Your task to perform on an android device: add a contact Image 0: 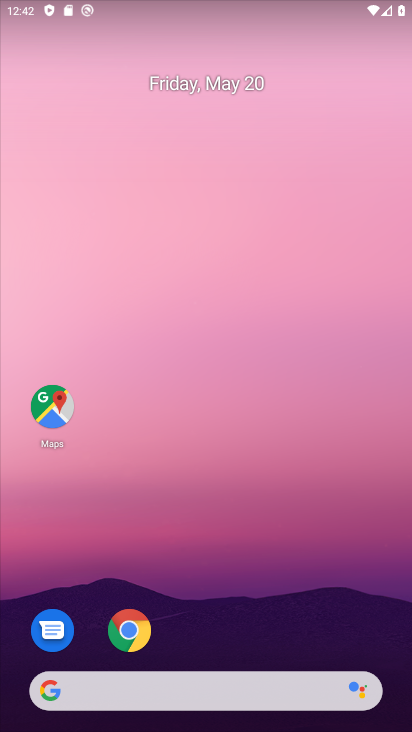
Step 0: drag from (208, 720) to (236, 339)
Your task to perform on an android device: add a contact Image 1: 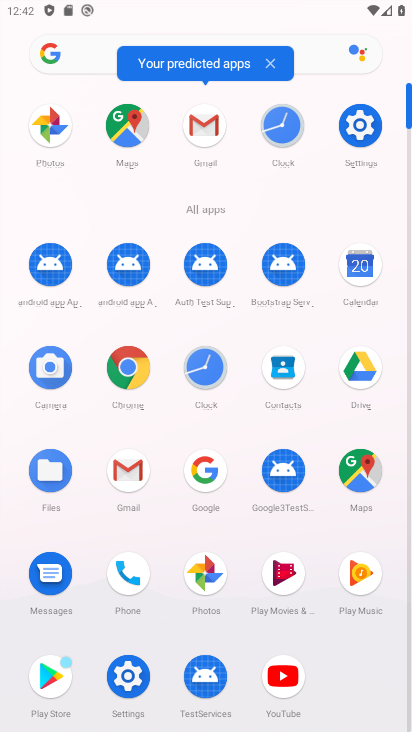
Step 1: click (134, 570)
Your task to perform on an android device: add a contact Image 2: 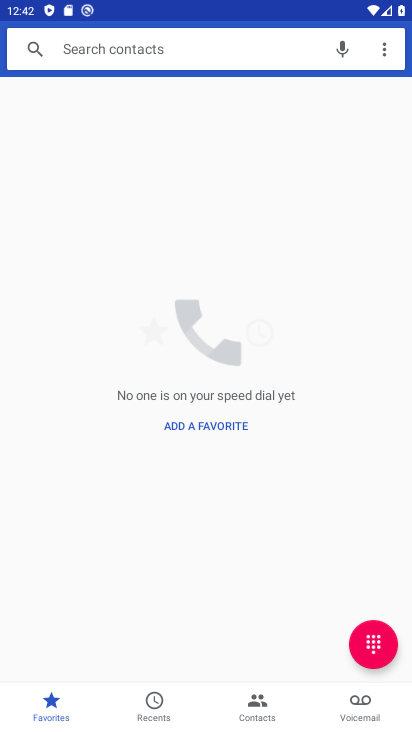
Step 2: click (247, 702)
Your task to perform on an android device: add a contact Image 3: 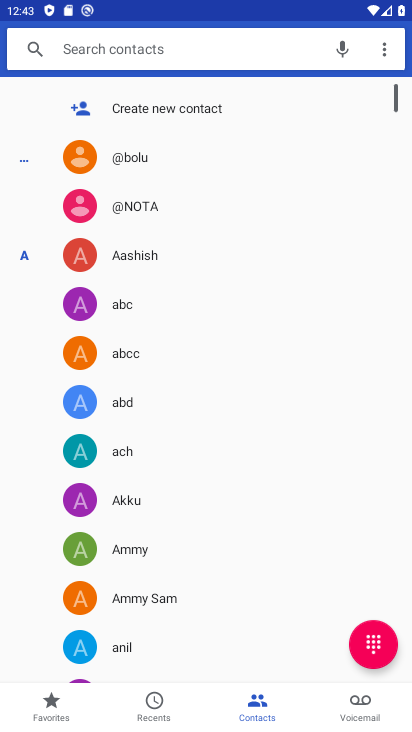
Step 3: click (112, 114)
Your task to perform on an android device: add a contact Image 4: 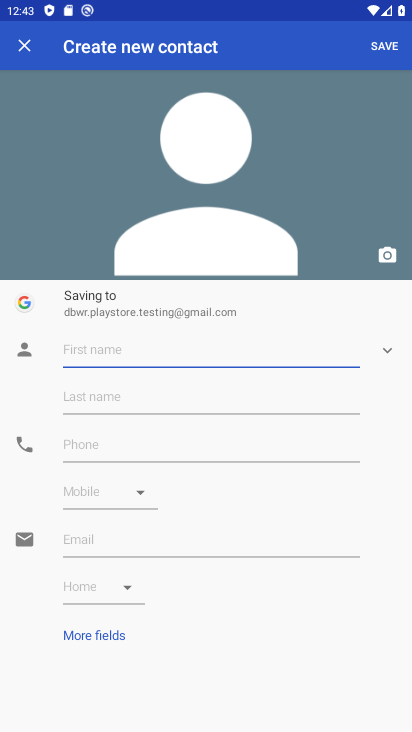
Step 4: click (136, 354)
Your task to perform on an android device: add a contact Image 5: 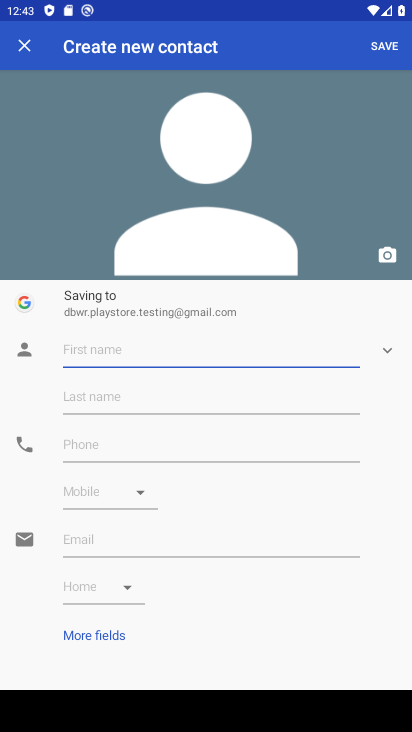
Step 5: drag from (373, 717) to (367, 589)
Your task to perform on an android device: add a contact Image 6: 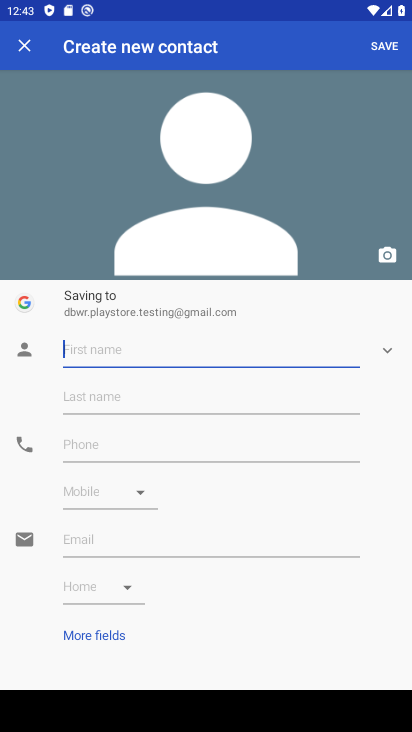
Step 6: click (386, 711)
Your task to perform on an android device: add a contact Image 7: 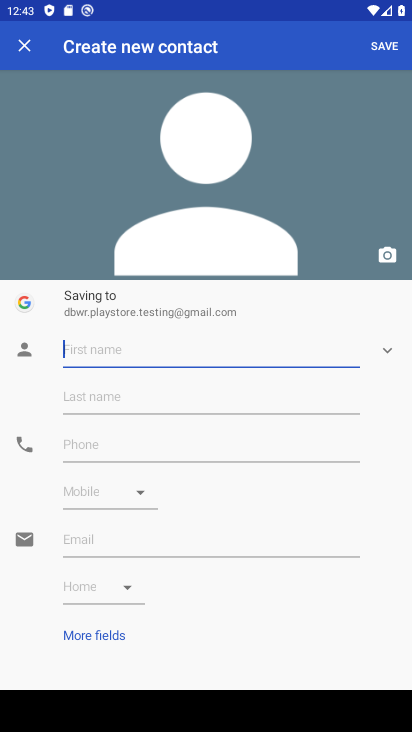
Step 7: drag from (385, 711) to (368, 654)
Your task to perform on an android device: add a contact Image 8: 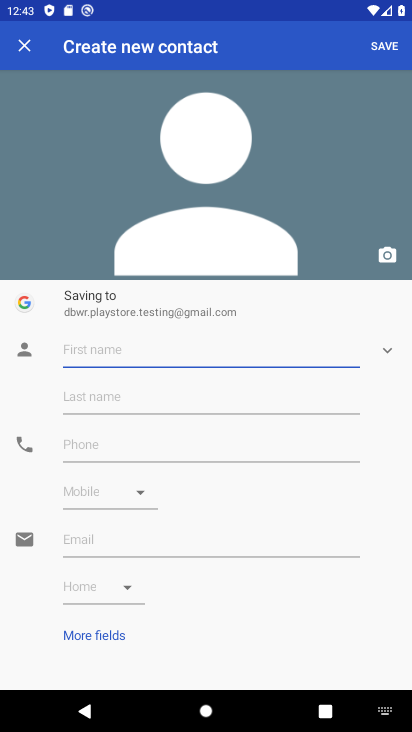
Step 8: click (401, 720)
Your task to perform on an android device: add a contact Image 9: 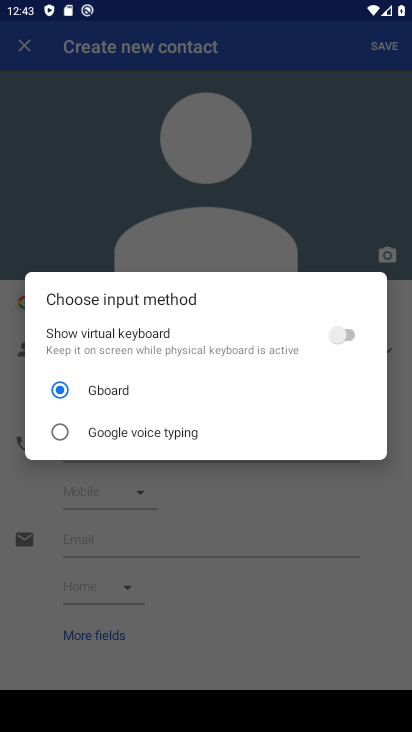
Step 9: click (352, 322)
Your task to perform on an android device: add a contact Image 10: 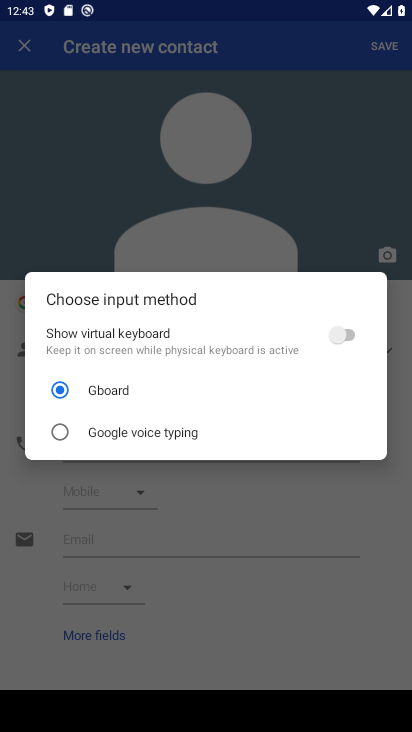
Step 10: click (336, 331)
Your task to perform on an android device: add a contact Image 11: 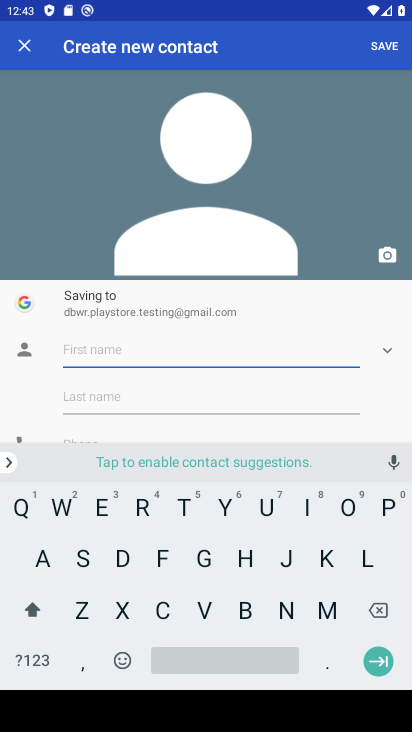
Step 11: click (249, 561)
Your task to perform on an android device: add a contact Image 12: 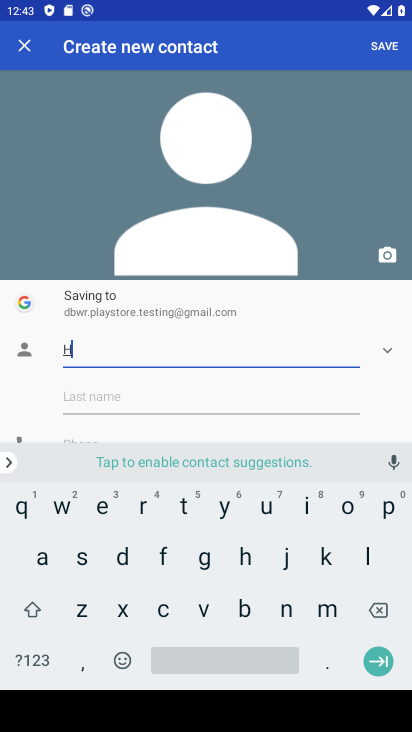
Step 12: click (273, 563)
Your task to perform on an android device: add a contact Image 13: 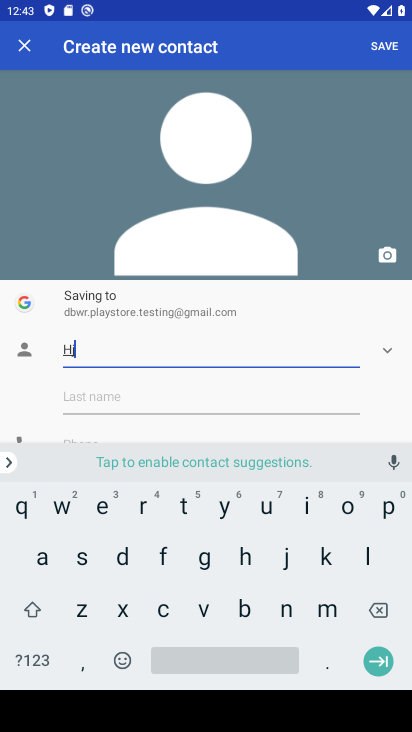
Step 13: click (318, 552)
Your task to perform on an android device: add a contact Image 14: 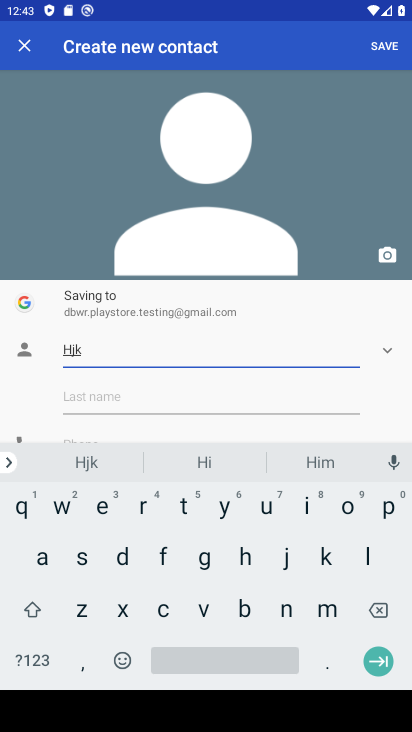
Step 14: click (126, 424)
Your task to perform on an android device: add a contact Image 15: 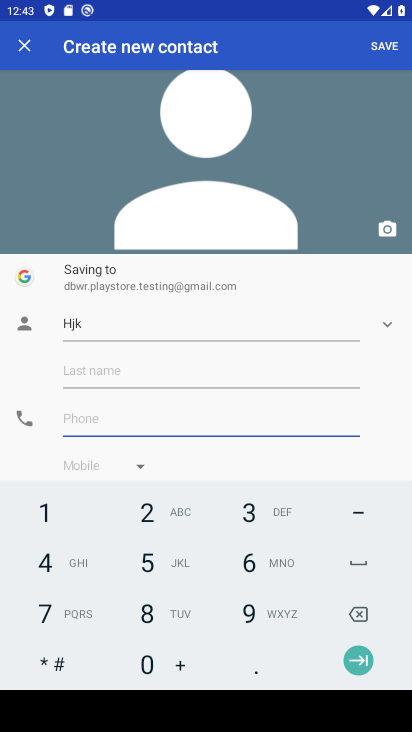
Step 15: click (121, 553)
Your task to perform on an android device: add a contact Image 16: 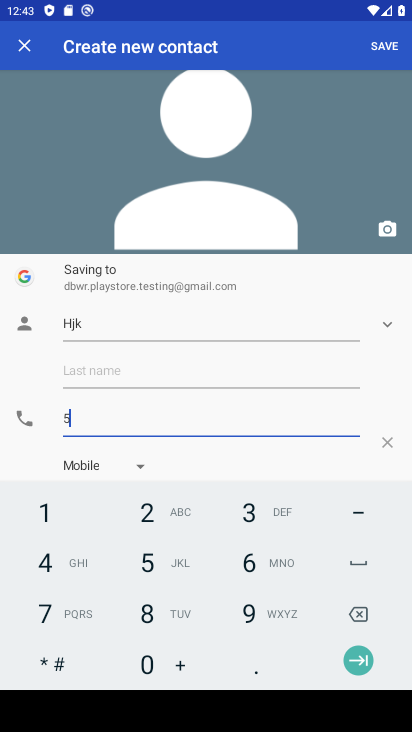
Step 16: click (60, 563)
Your task to perform on an android device: add a contact Image 17: 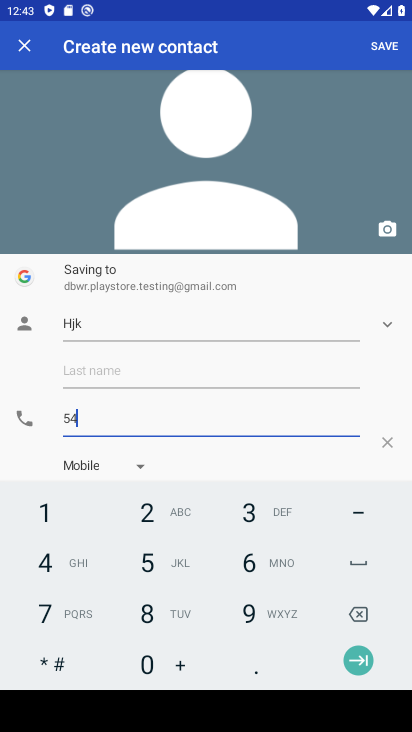
Step 17: click (121, 612)
Your task to perform on an android device: add a contact Image 18: 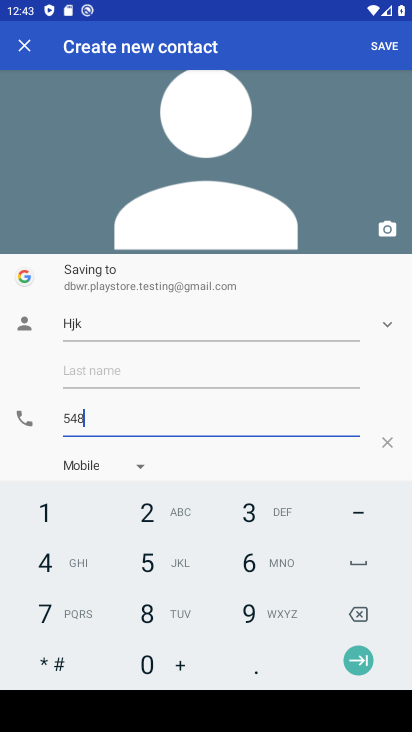
Step 18: click (143, 519)
Your task to perform on an android device: add a contact Image 19: 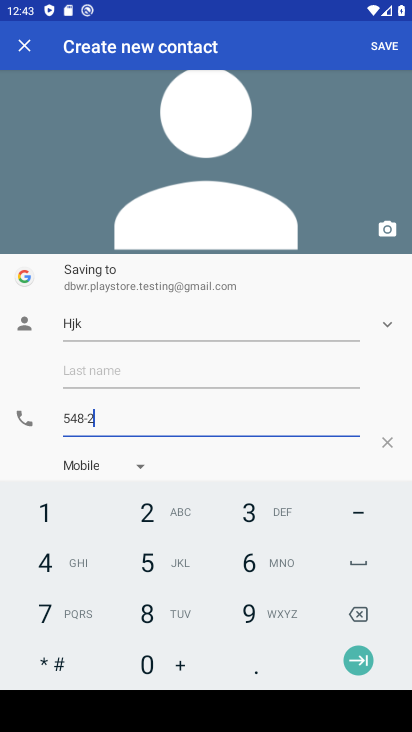
Step 19: click (266, 566)
Your task to perform on an android device: add a contact Image 20: 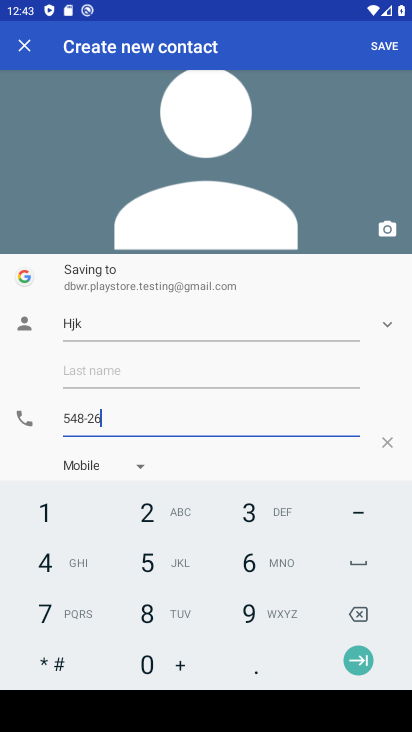
Step 20: click (254, 596)
Your task to perform on an android device: add a contact Image 21: 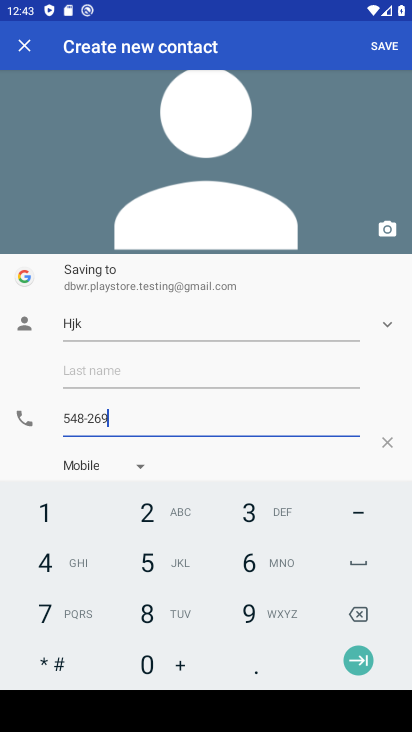
Step 21: click (141, 582)
Your task to perform on an android device: add a contact Image 22: 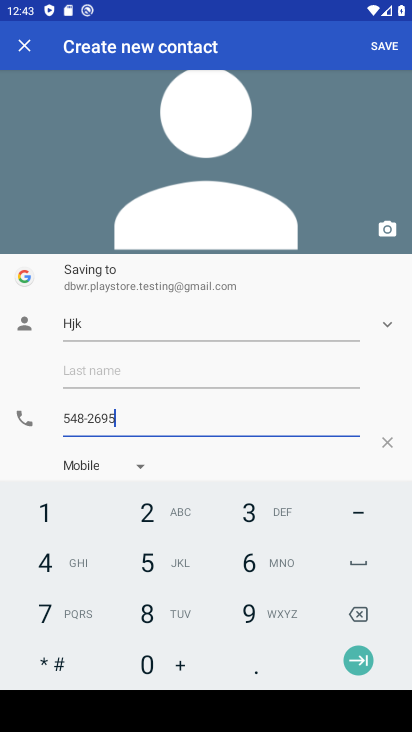
Step 22: click (165, 615)
Your task to perform on an android device: add a contact Image 23: 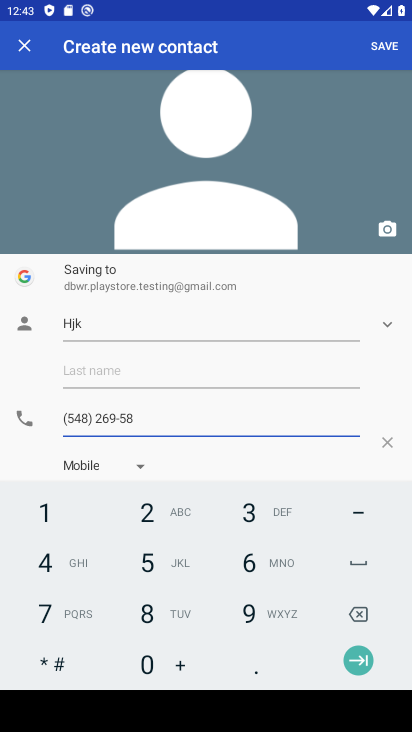
Step 23: click (398, 40)
Your task to perform on an android device: add a contact Image 24: 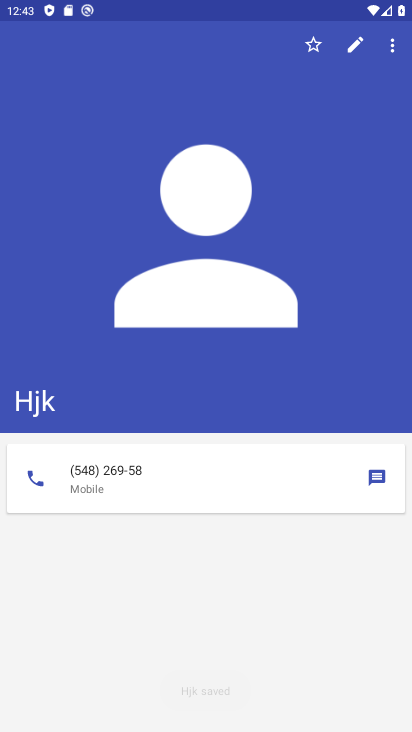
Step 24: task complete